Your task to perform on an android device: check storage Image 0: 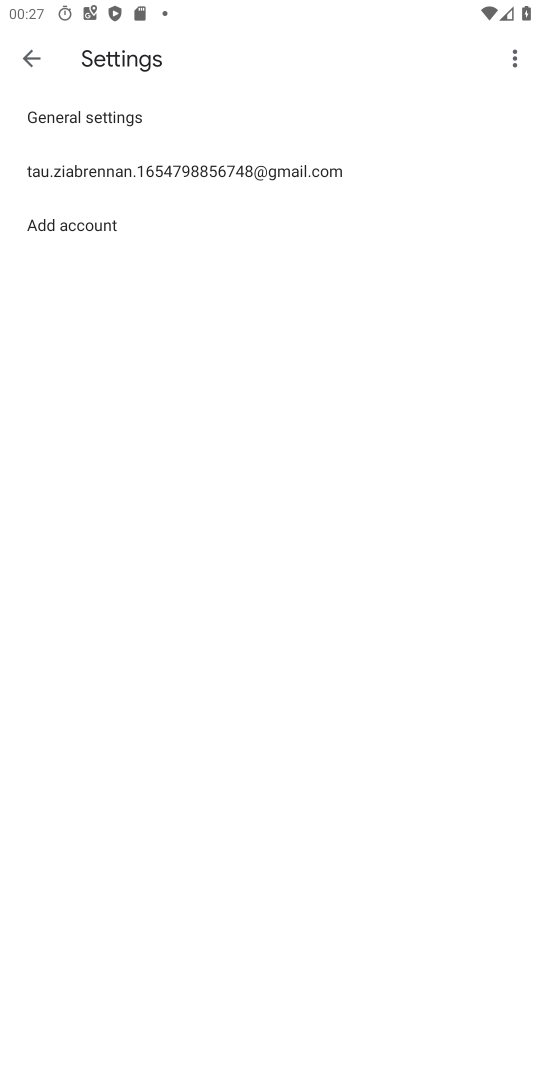
Step 0: press home button
Your task to perform on an android device: check storage Image 1: 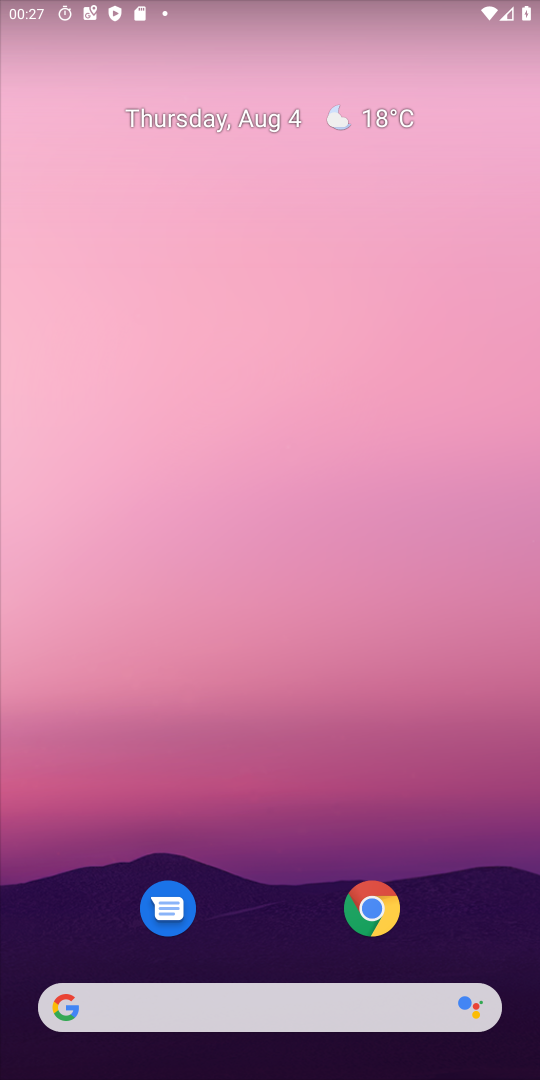
Step 1: drag from (330, 1023) to (395, 154)
Your task to perform on an android device: check storage Image 2: 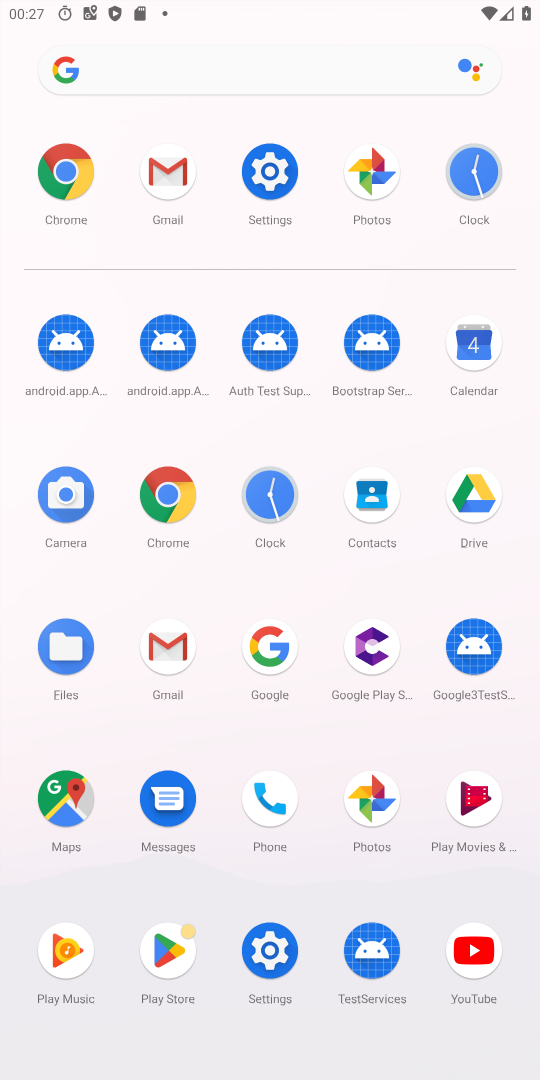
Step 2: click (260, 160)
Your task to perform on an android device: check storage Image 3: 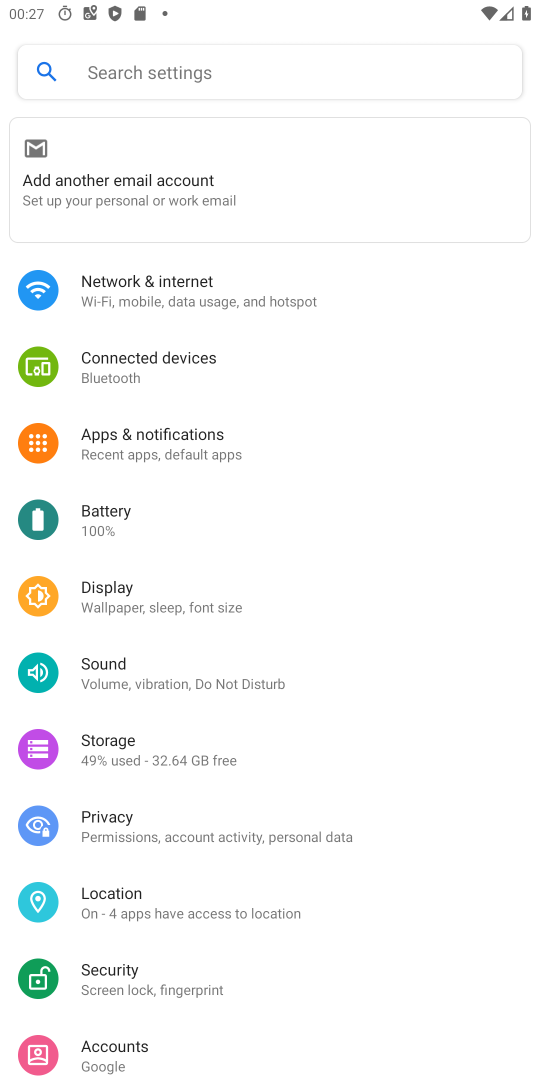
Step 3: click (158, 80)
Your task to perform on an android device: check storage Image 4: 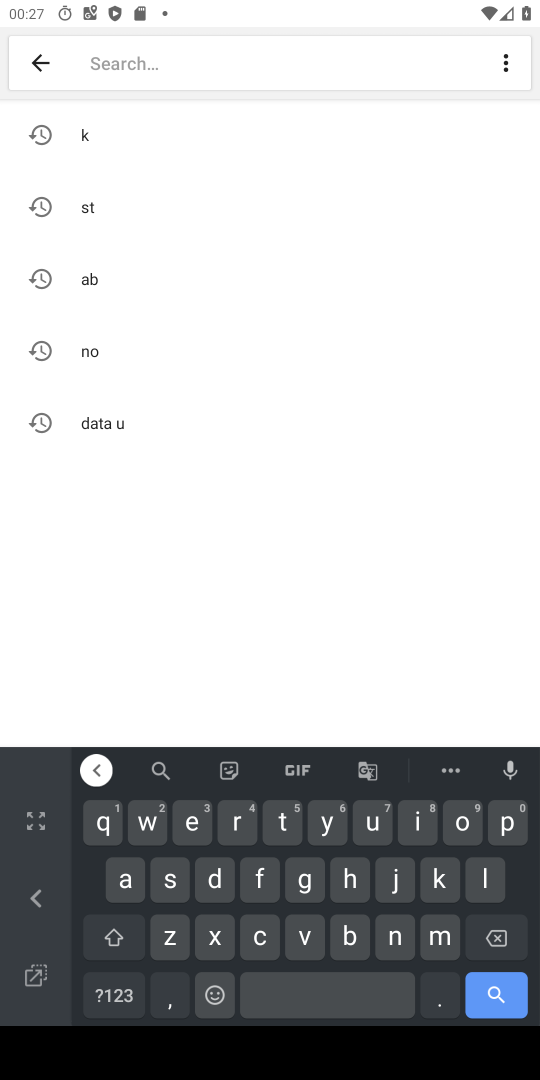
Step 4: click (17, 826)
Your task to perform on an android device: check storage Image 5: 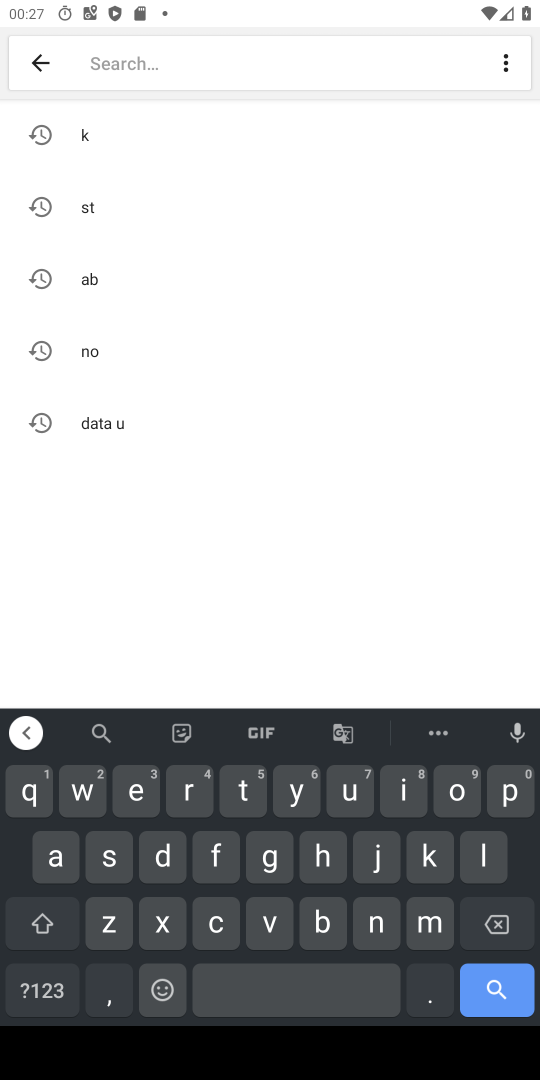
Step 5: click (103, 863)
Your task to perform on an android device: check storage Image 6: 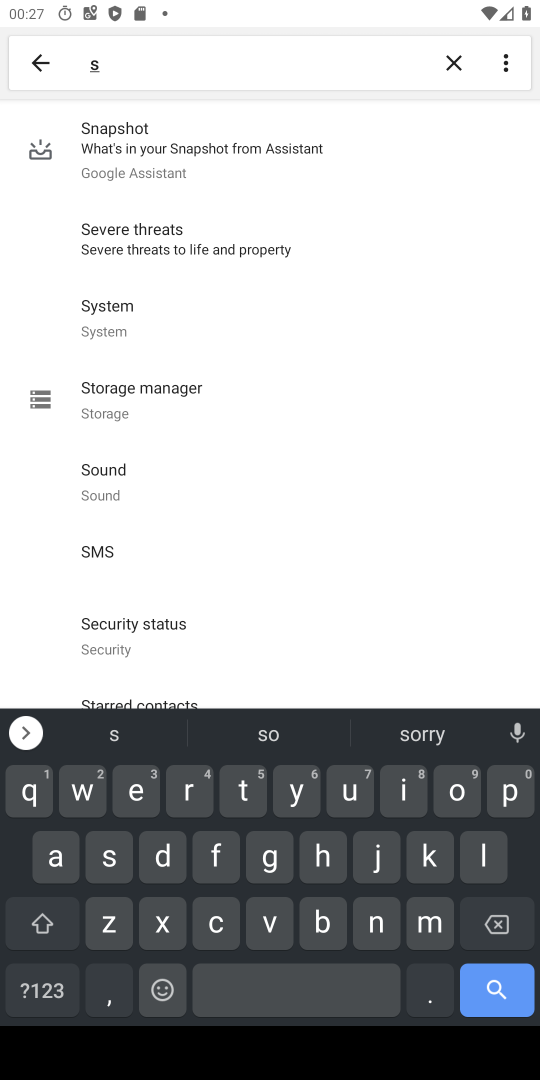
Step 6: click (237, 785)
Your task to perform on an android device: check storage Image 7: 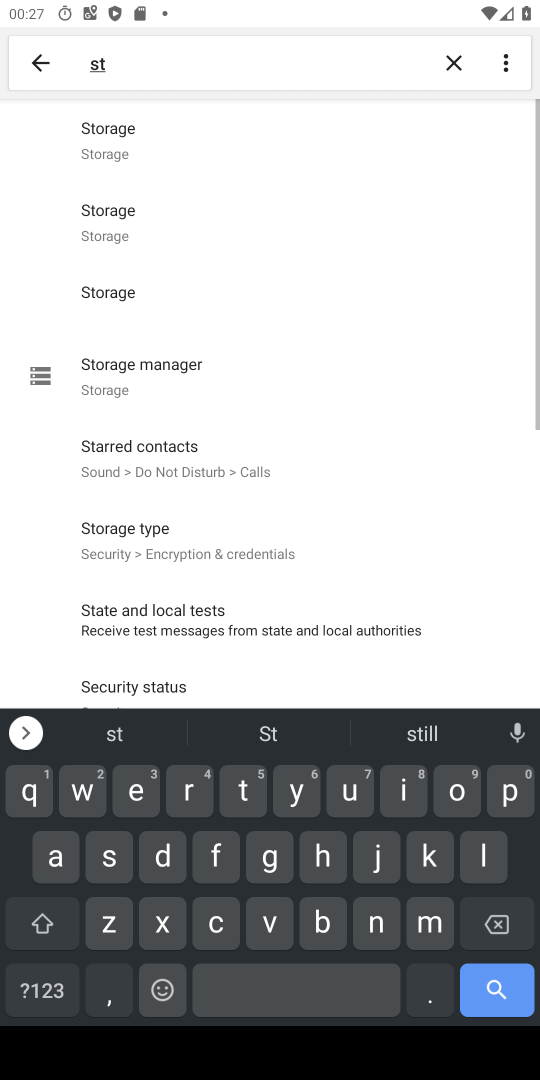
Step 7: click (128, 163)
Your task to perform on an android device: check storage Image 8: 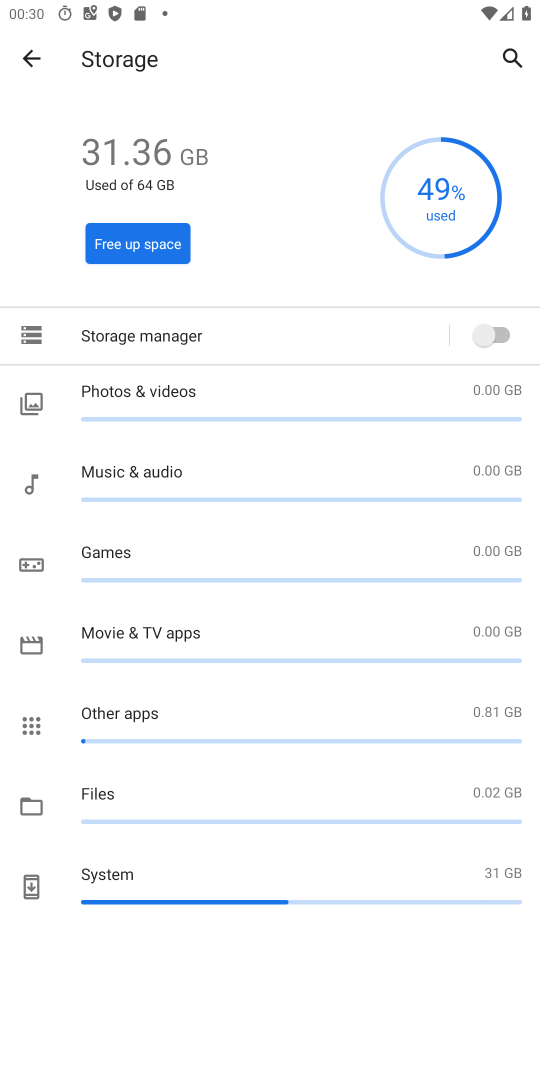
Step 8: task complete